Your task to perform on an android device: Open Chrome and go to the settings page Image 0: 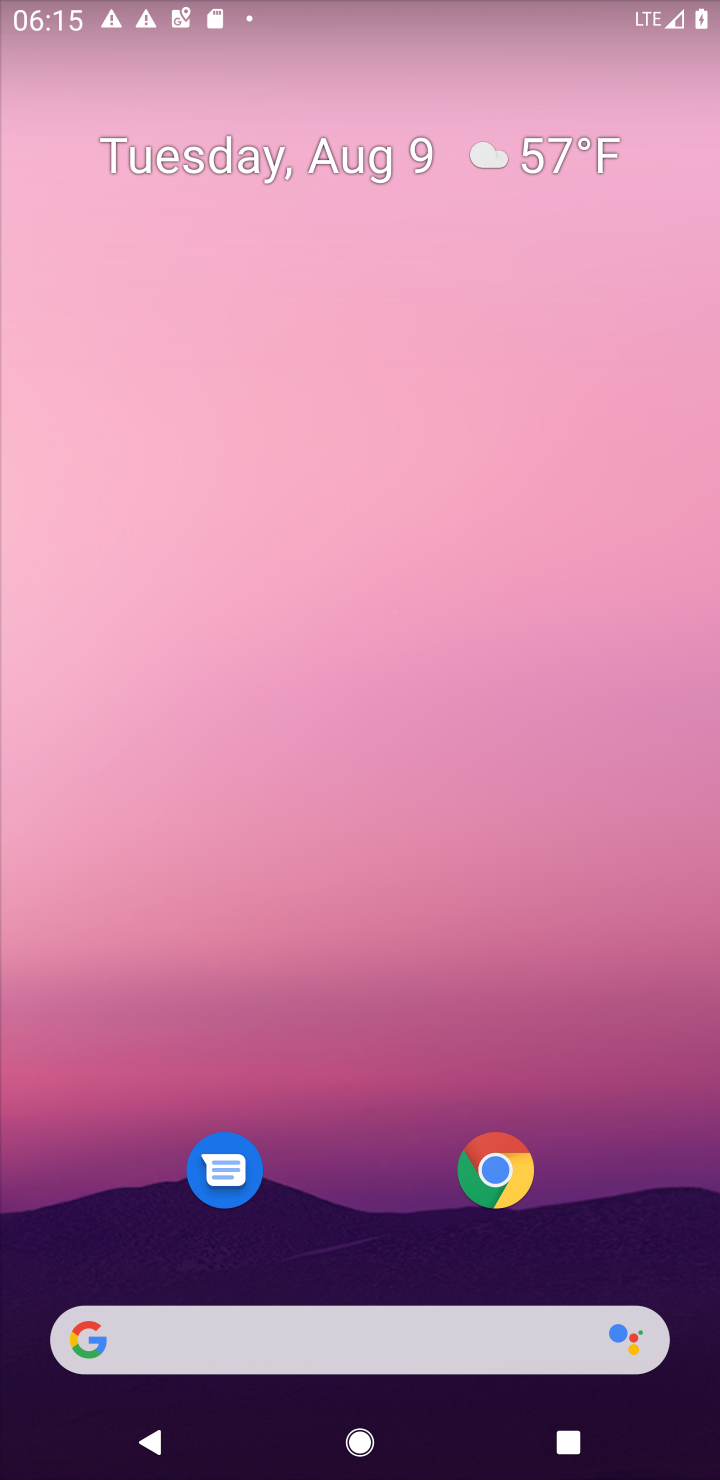
Step 0: click (493, 1160)
Your task to perform on an android device: Open Chrome and go to the settings page Image 1: 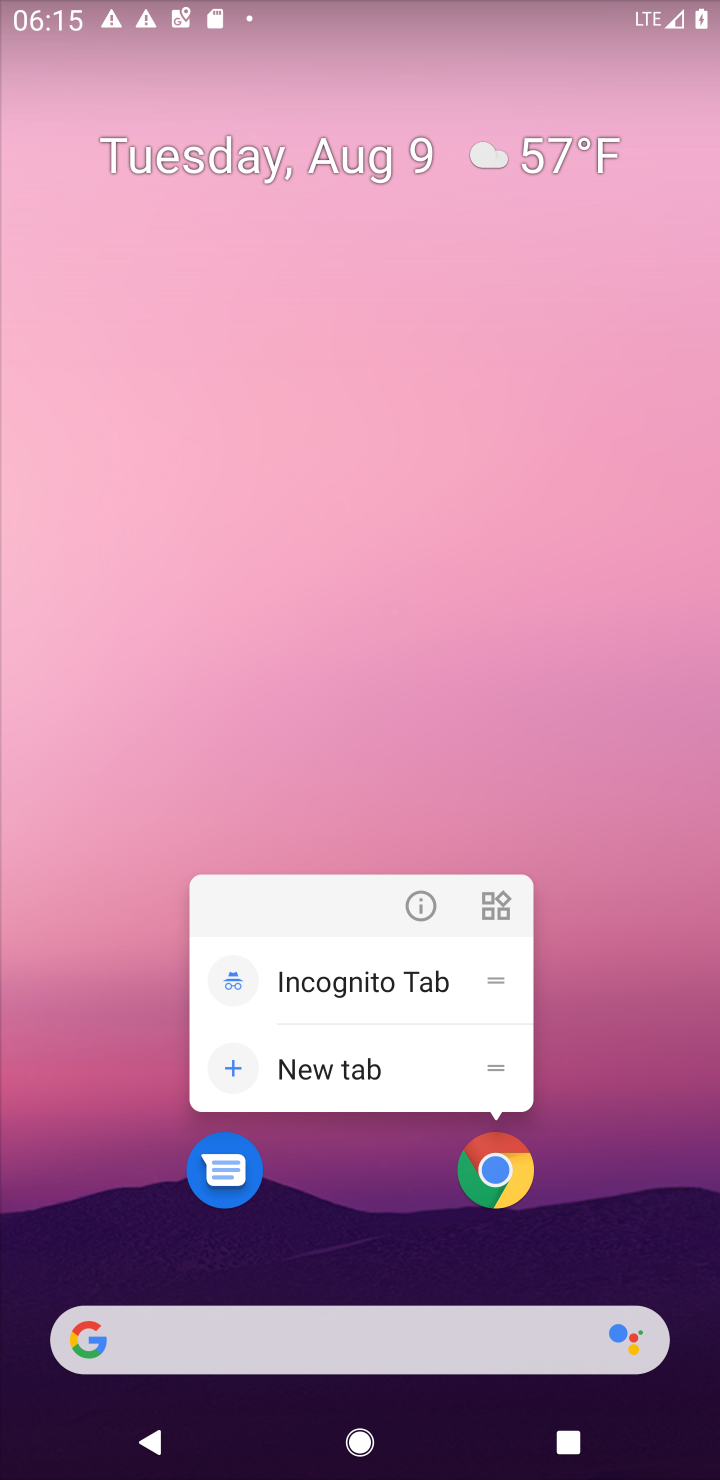
Step 1: click (487, 1183)
Your task to perform on an android device: Open Chrome and go to the settings page Image 2: 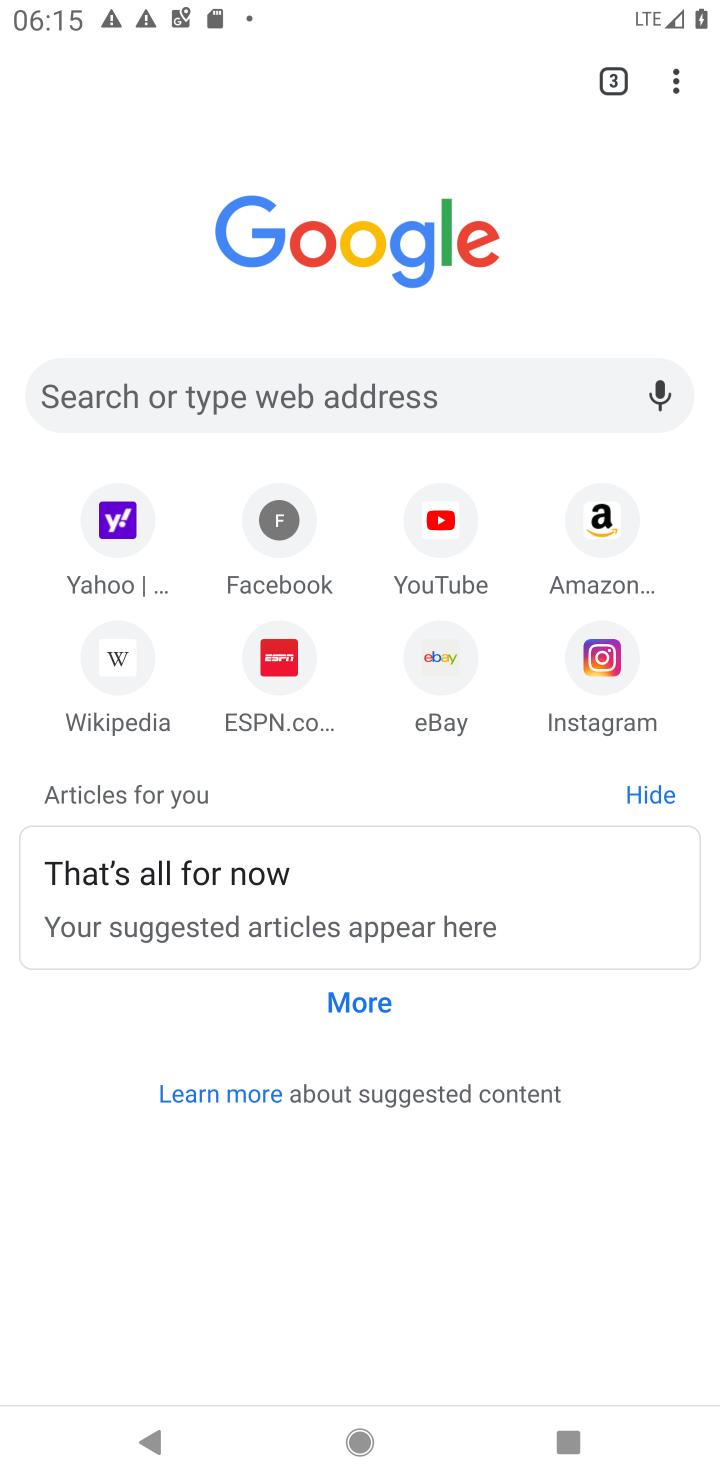
Step 2: task complete